Your task to perform on an android device: Open Chrome and go to settings Image 0: 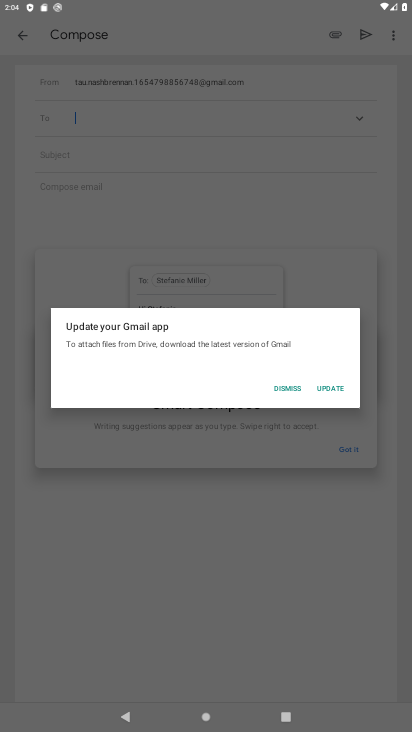
Step 0: press home button
Your task to perform on an android device: Open Chrome and go to settings Image 1: 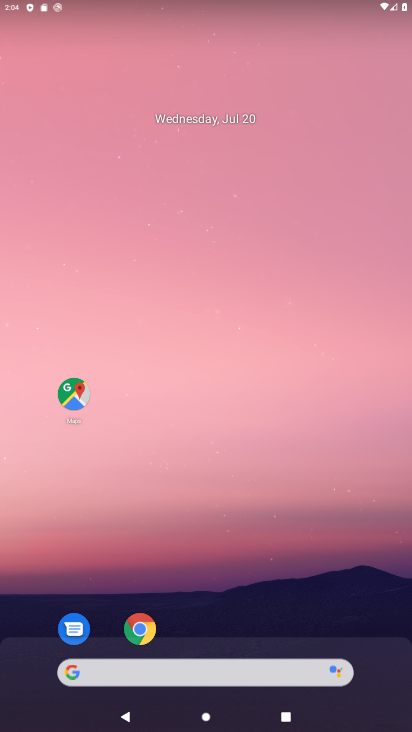
Step 1: click (149, 636)
Your task to perform on an android device: Open Chrome and go to settings Image 2: 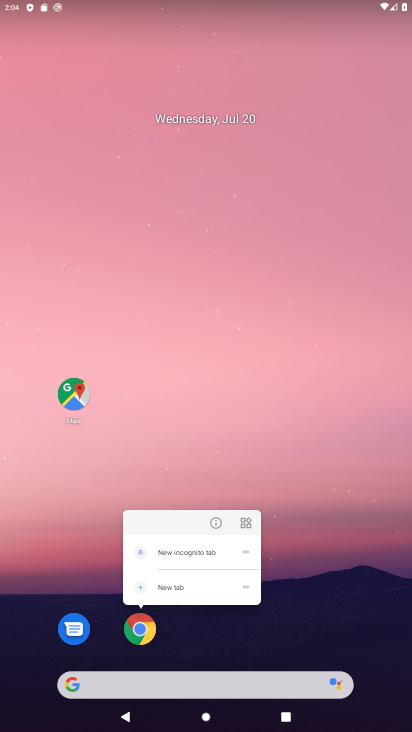
Step 2: click (151, 634)
Your task to perform on an android device: Open Chrome and go to settings Image 3: 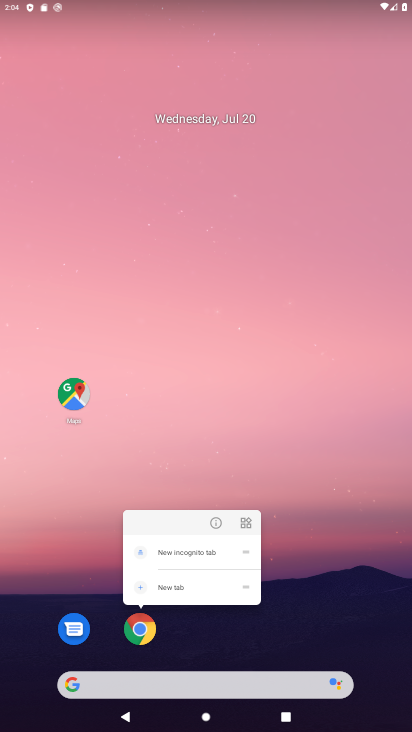
Step 3: click (151, 634)
Your task to perform on an android device: Open Chrome and go to settings Image 4: 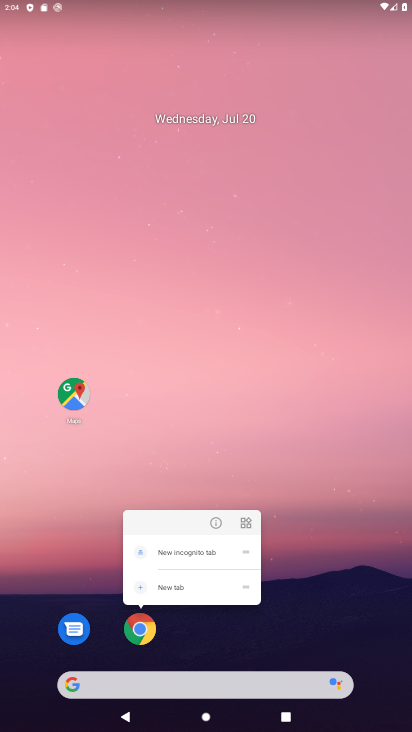
Step 4: click (142, 621)
Your task to perform on an android device: Open Chrome and go to settings Image 5: 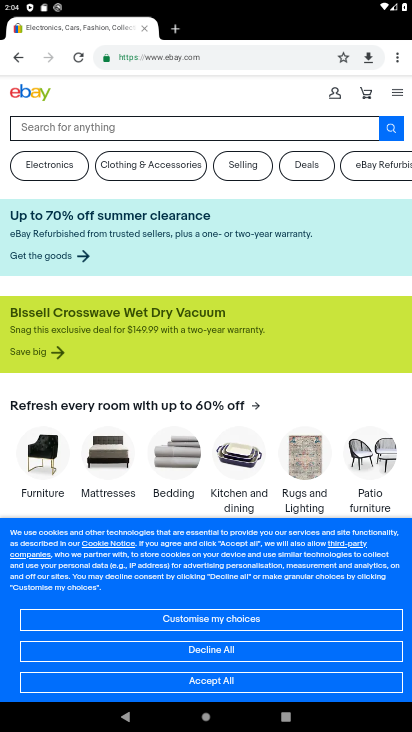
Step 5: click (399, 54)
Your task to perform on an android device: Open Chrome and go to settings Image 6: 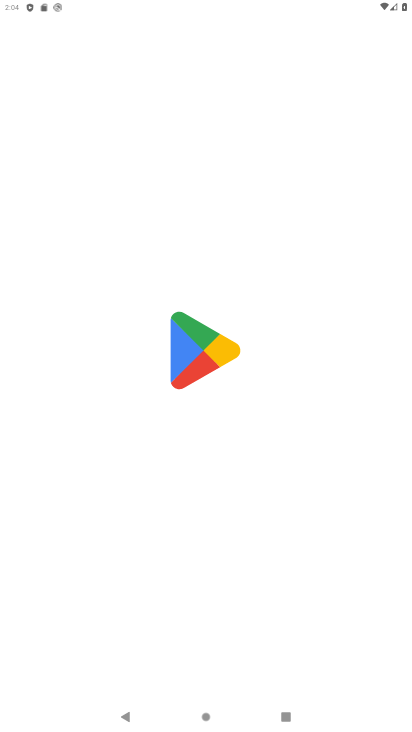
Step 6: task complete